Your task to perform on an android device: add a contact in the contacts app Image 0: 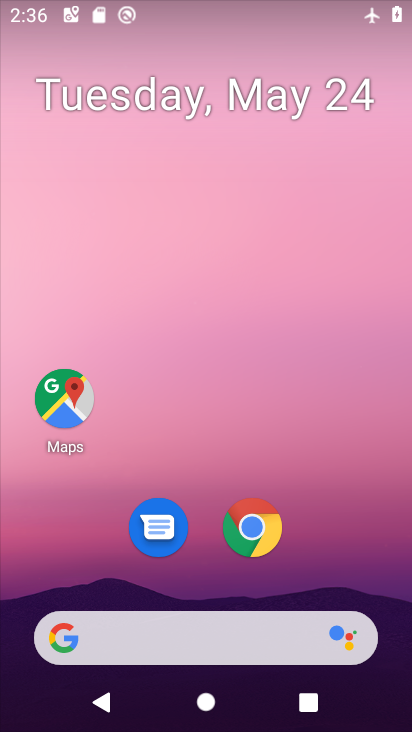
Step 0: drag from (349, 580) to (312, 54)
Your task to perform on an android device: add a contact in the contacts app Image 1: 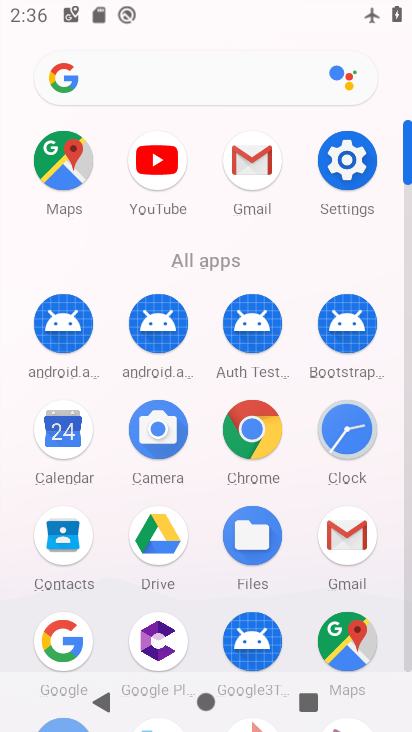
Step 1: click (65, 540)
Your task to perform on an android device: add a contact in the contacts app Image 2: 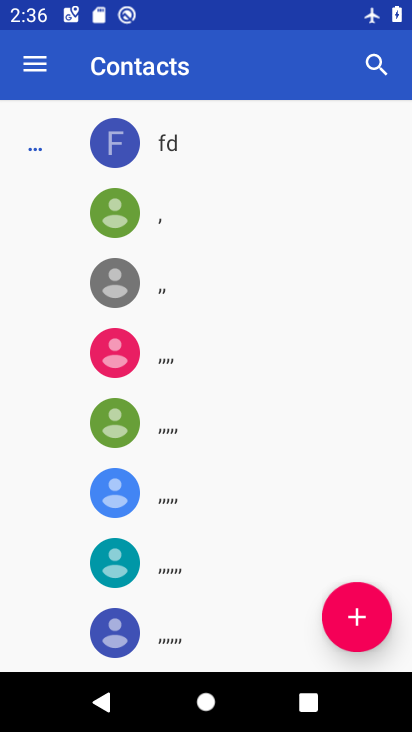
Step 2: click (358, 618)
Your task to perform on an android device: add a contact in the contacts app Image 3: 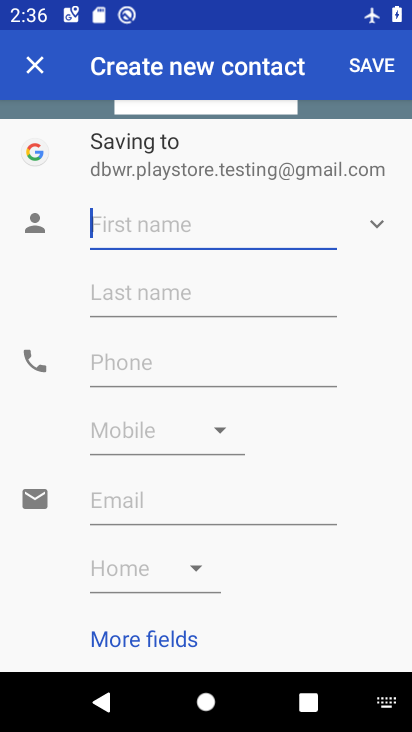
Step 3: type "bala"
Your task to perform on an android device: add a contact in the contacts app Image 4: 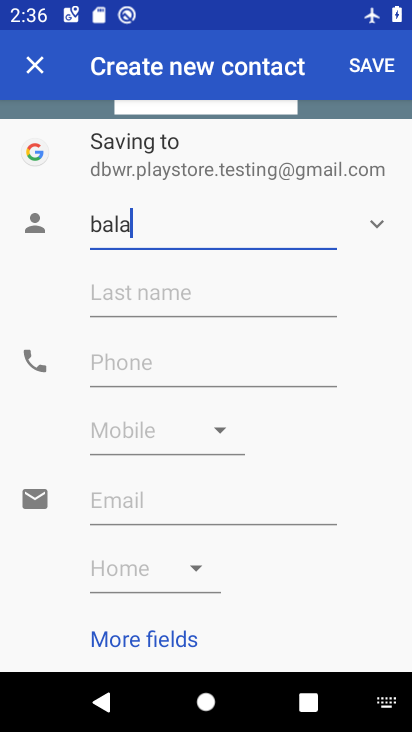
Step 4: click (142, 361)
Your task to perform on an android device: add a contact in the contacts app Image 5: 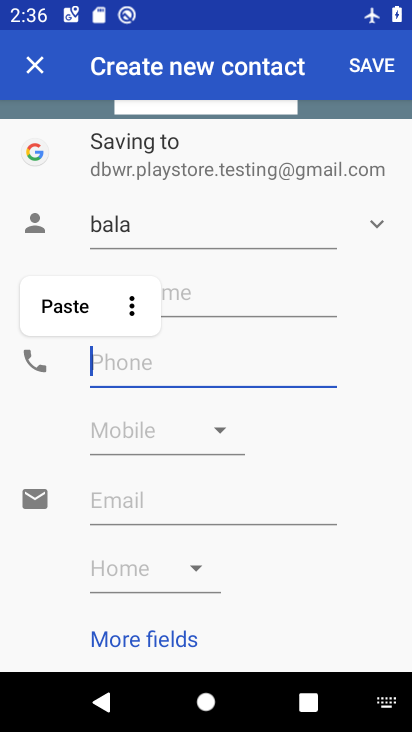
Step 5: type "98866655"
Your task to perform on an android device: add a contact in the contacts app Image 6: 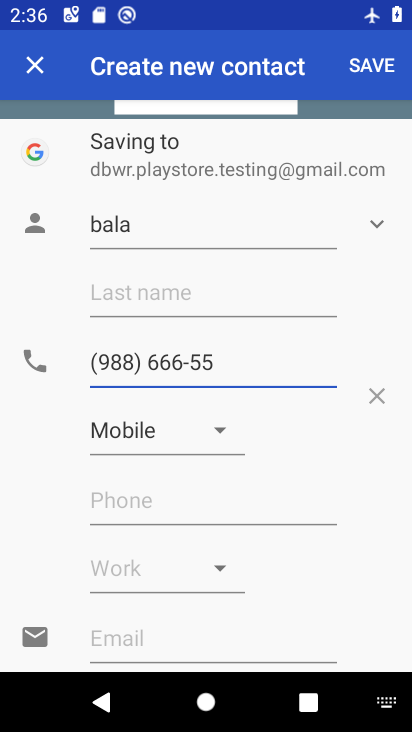
Step 6: click (347, 65)
Your task to perform on an android device: add a contact in the contacts app Image 7: 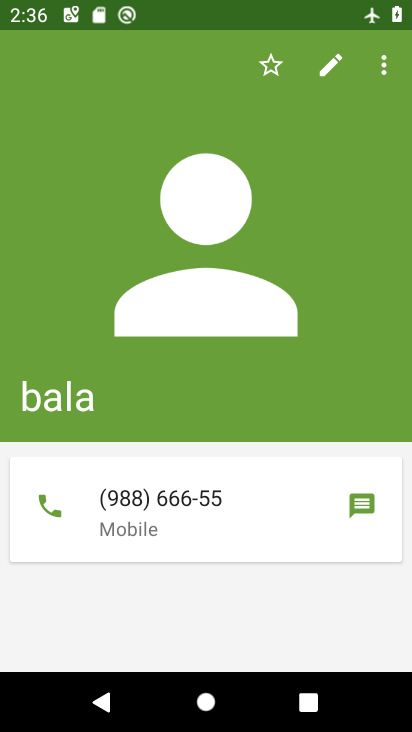
Step 7: task complete